Your task to perform on an android device: change alarm snooze length Image 0: 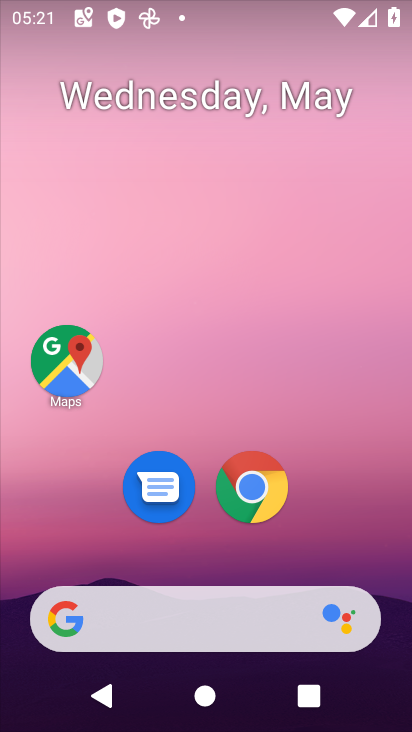
Step 0: drag from (342, 553) to (302, 255)
Your task to perform on an android device: change alarm snooze length Image 1: 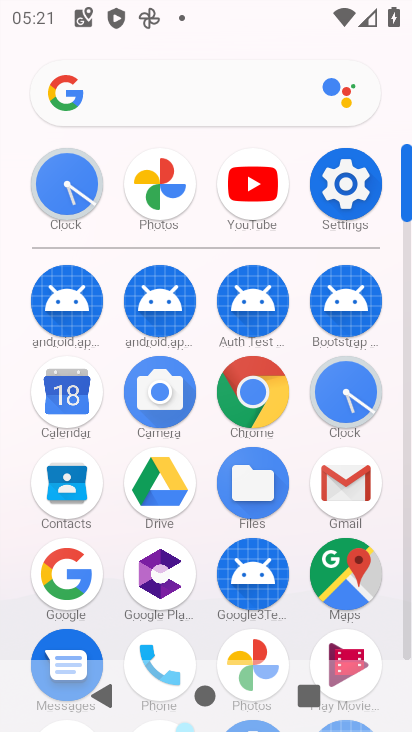
Step 1: click (340, 208)
Your task to perform on an android device: change alarm snooze length Image 2: 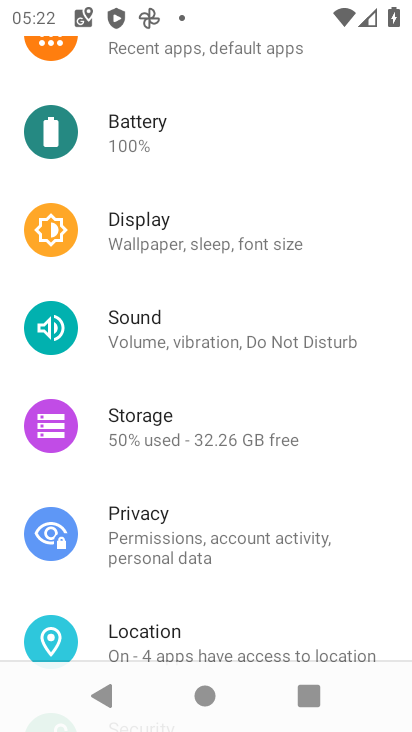
Step 2: press home button
Your task to perform on an android device: change alarm snooze length Image 3: 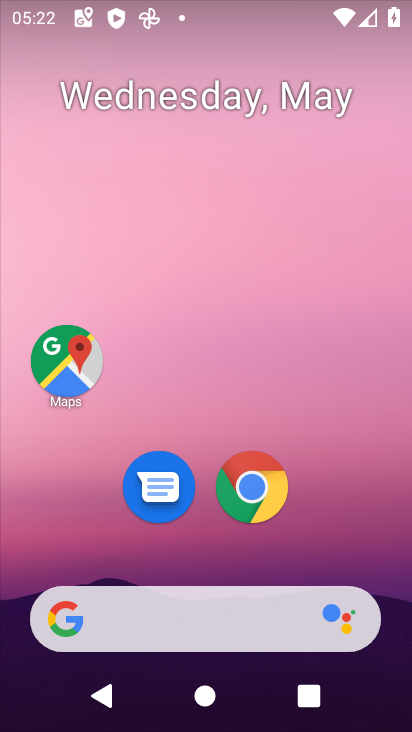
Step 3: drag from (367, 546) to (303, 236)
Your task to perform on an android device: change alarm snooze length Image 4: 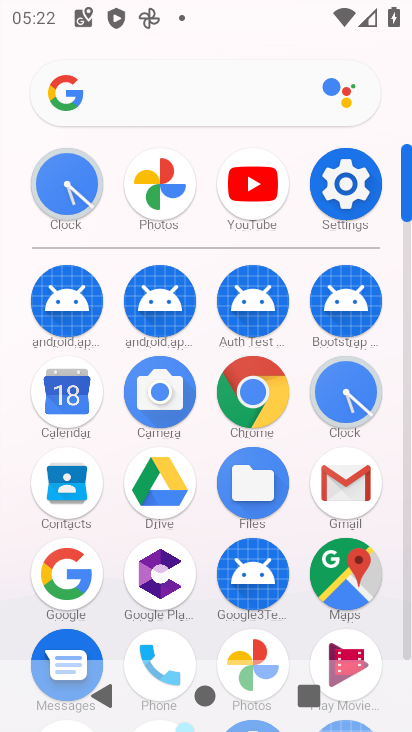
Step 4: click (331, 396)
Your task to perform on an android device: change alarm snooze length Image 5: 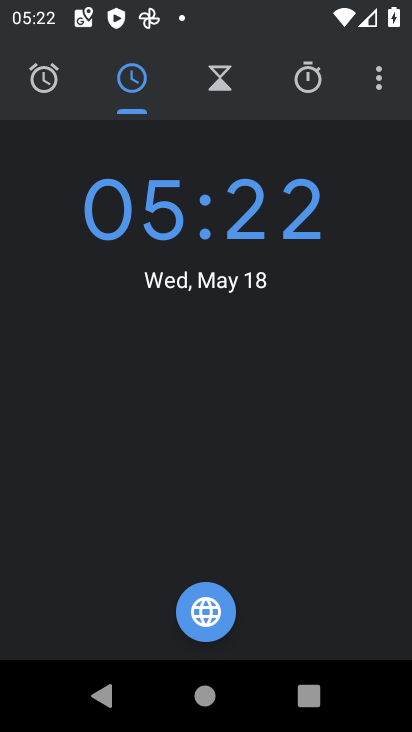
Step 5: click (382, 80)
Your task to perform on an android device: change alarm snooze length Image 6: 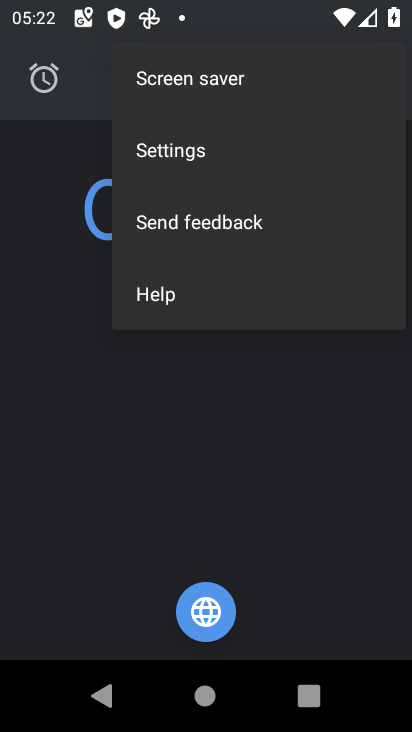
Step 6: click (261, 150)
Your task to perform on an android device: change alarm snooze length Image 7: 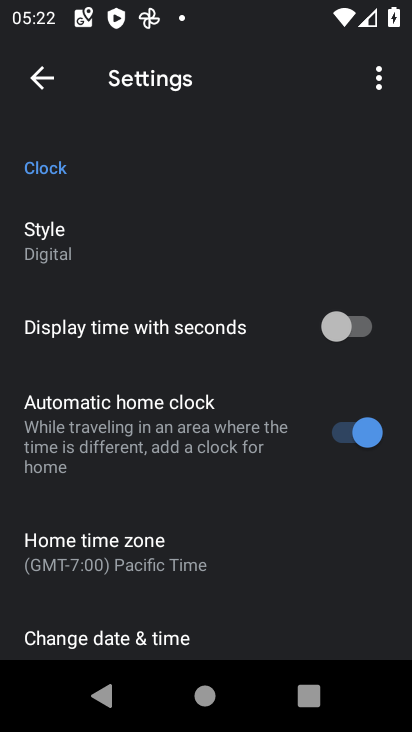
Step 7: drag from (184, 476) to (200, 285)
Your task to perform on an android device: change alarm snooze length Image 8: 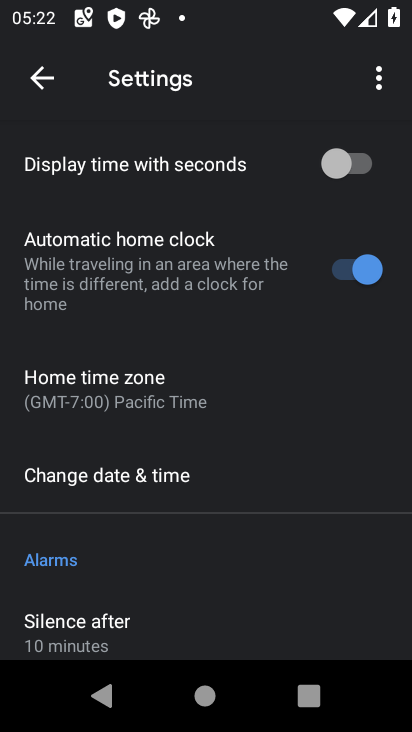
Step 8: drag from (184, 595) to (203, 307)
Your task to perform on an android device: change alarm snooze length Image 9: 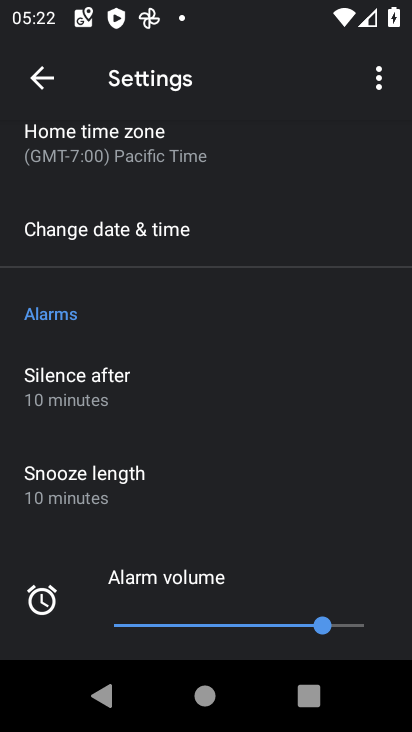
Step 9: click (163, 477)
Your task to perform on an android device: change alarm snooze length Image 10: 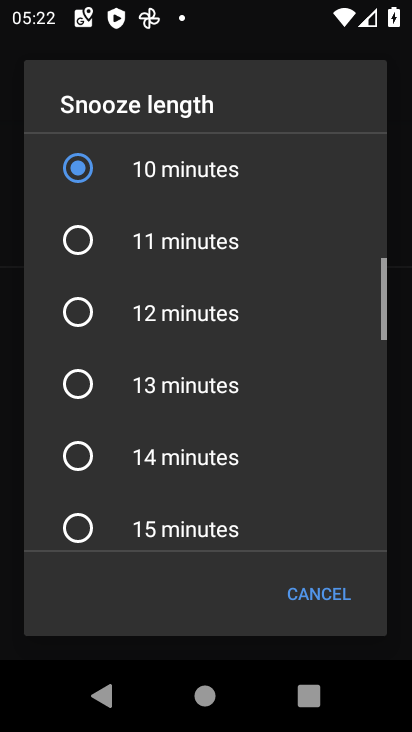
Step 10: click (203, 445)
Your task to perform on an android device: change alarm snooze length Image 11: 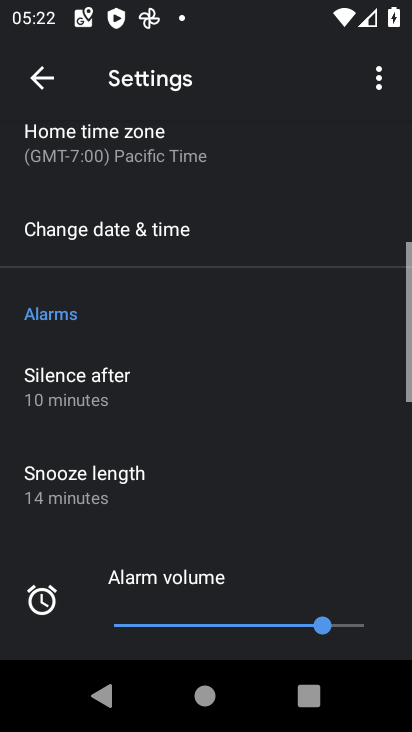
Step 11: task complete